Your task to perform on an android device: Empty the shopping cart on amazon.com. Add "razer huntsman" to the cart on amazon.com, then select checkout. Image 0: 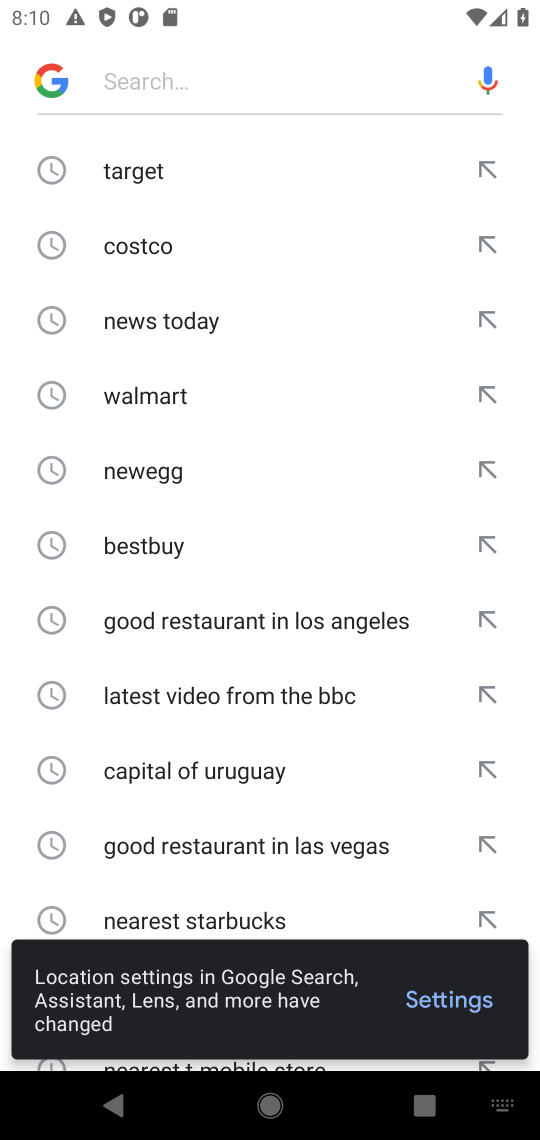
Step 0: press home button
Your task to perform on an android device: Empty the shopping cart on amazon.com. Add "razer huntsman" to the cart on amazon.com, then select checkout. Image 1: 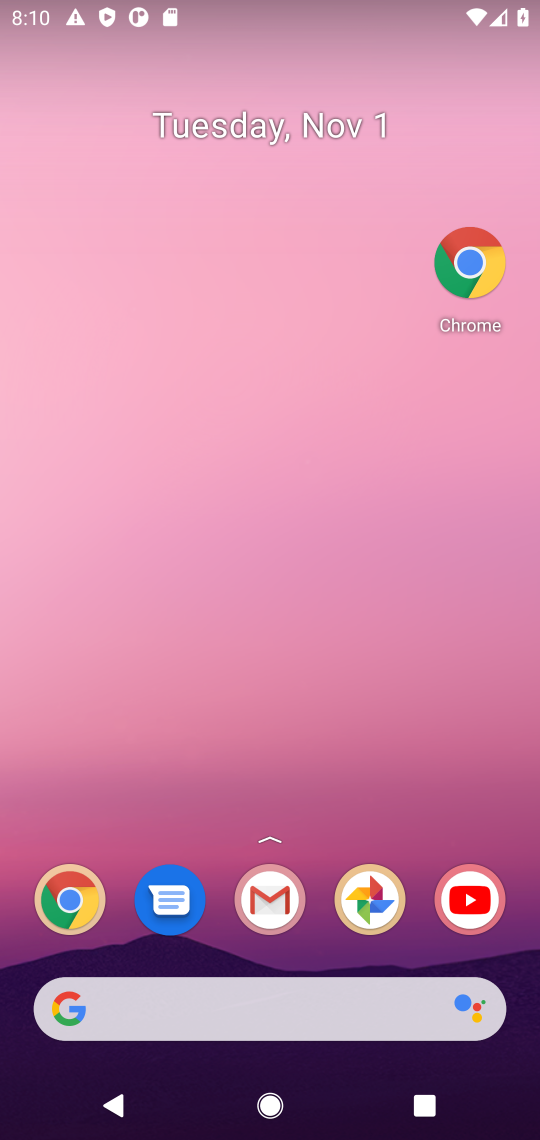
Step 1: drag from (319, 969) to (223, 128)
Your task to perform on an android device: Empty the shopping cart on amazon.com. Add "razer huntsman" to the cart on amazon.com, then select checkout. Image 2: 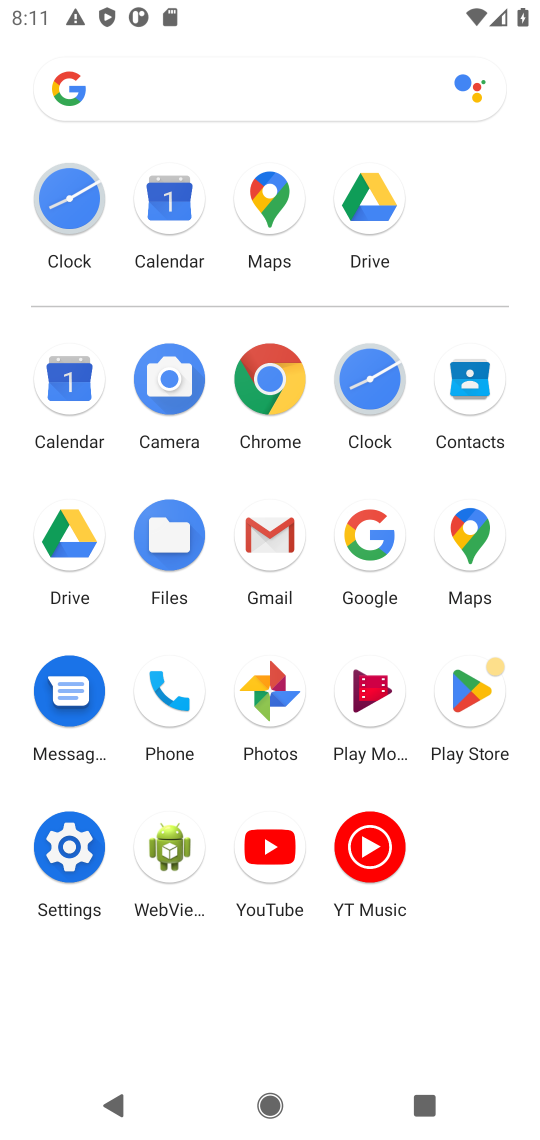
Step 2: click (259, 389)
Your task to perform on an android device: Empty the shopping cart on amazon.com. Add "razer huntsman" to the cart on amazon.com, then select checkout. Image 3: 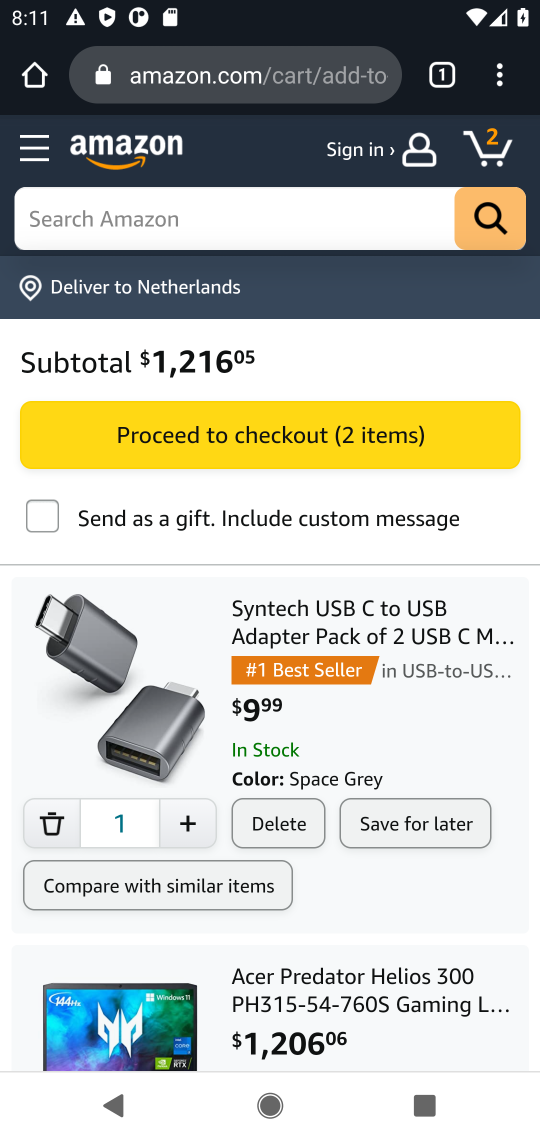
Step 3: click (493, 147)
Your task to perform on an android device: Empty the shopping cart on amazon.com. Add "razer huntsman" to the cart on amazon.com, then select checkout. Image 4: 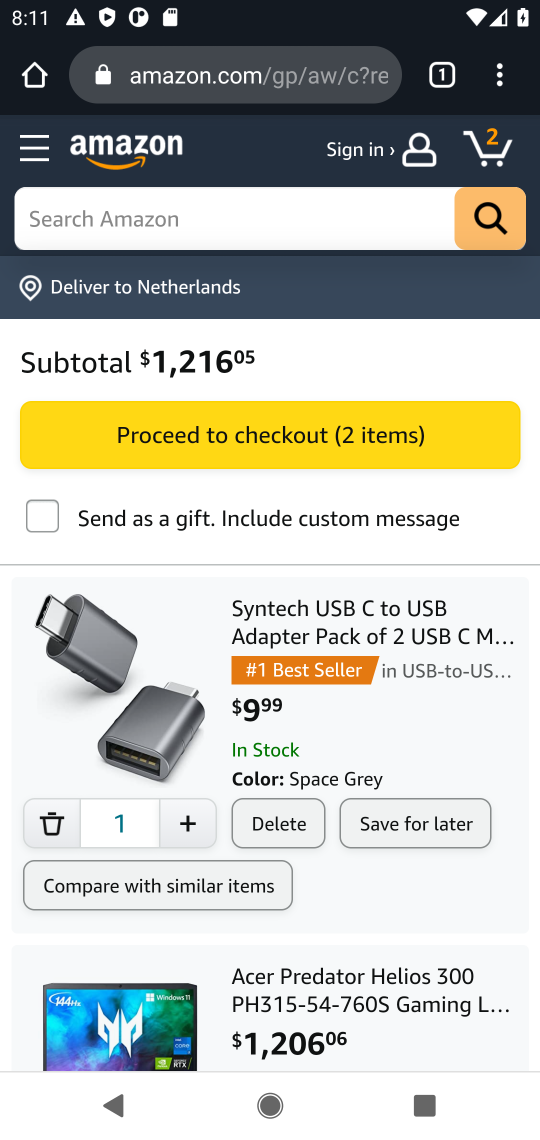
Step 4: click (287, 822)
Your task to perform on an android device: Empty the shopping cart on amazon.com. Add "razer huntsman" to the cart on amazon.com, then select checkout. Image 5: 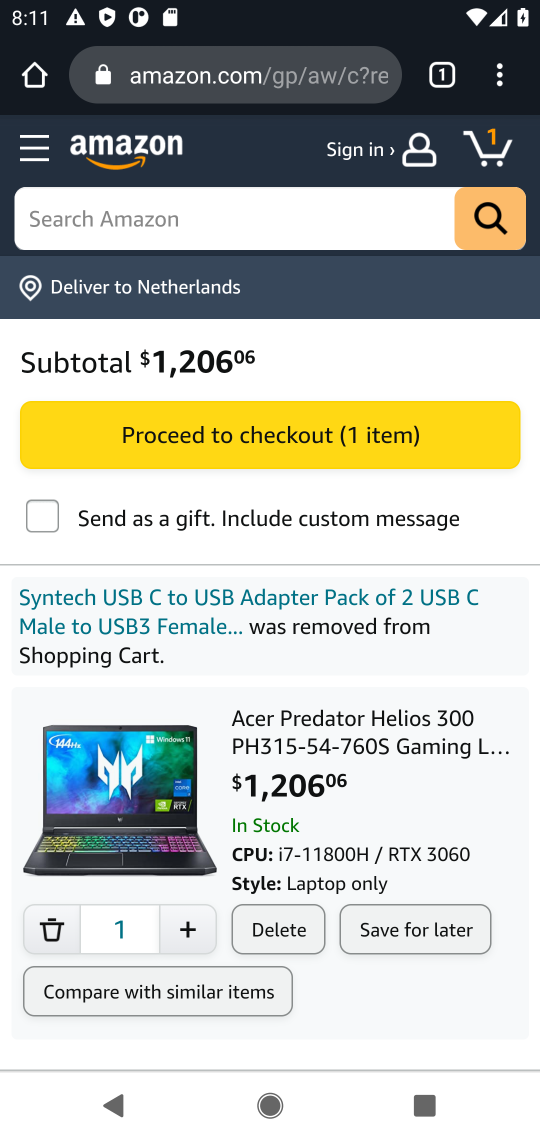
Step 5: click (292, 929)
Your task to perform on an android device: Empty the shopping cart on amazon.com. Add "razer huntsman" to the cart on amazon.com, then select checkout. Image 6: 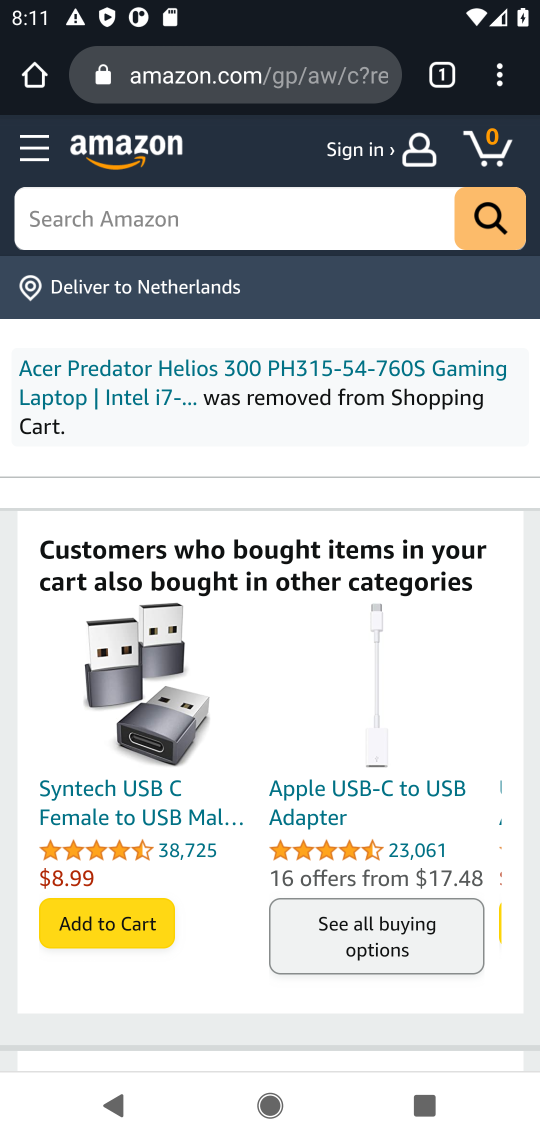
Step 6: click (268, 222)
Your task to perform on an android device: Empty the shopping cart on amazon.com. Add "razer huntsman" to the cart on amazon.com, then select checkout. Image 7: 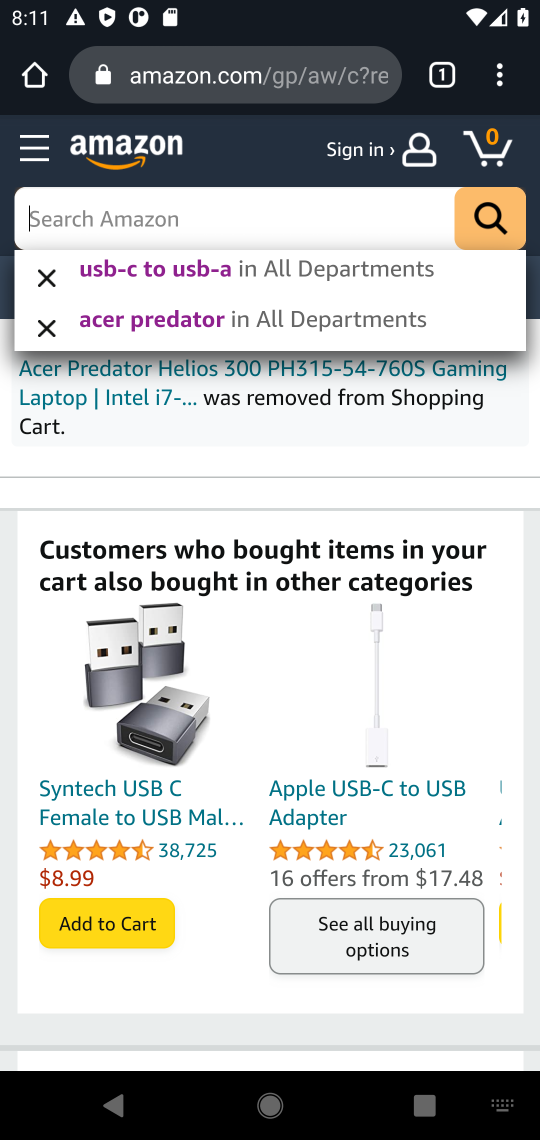
Step 7: type "razer huntsman"
Your task to perform on an android device: Empty the shopping cart on amazon.com. Add "razer huntsman" to the cart on amazon.com, then select checkout. Image 8: 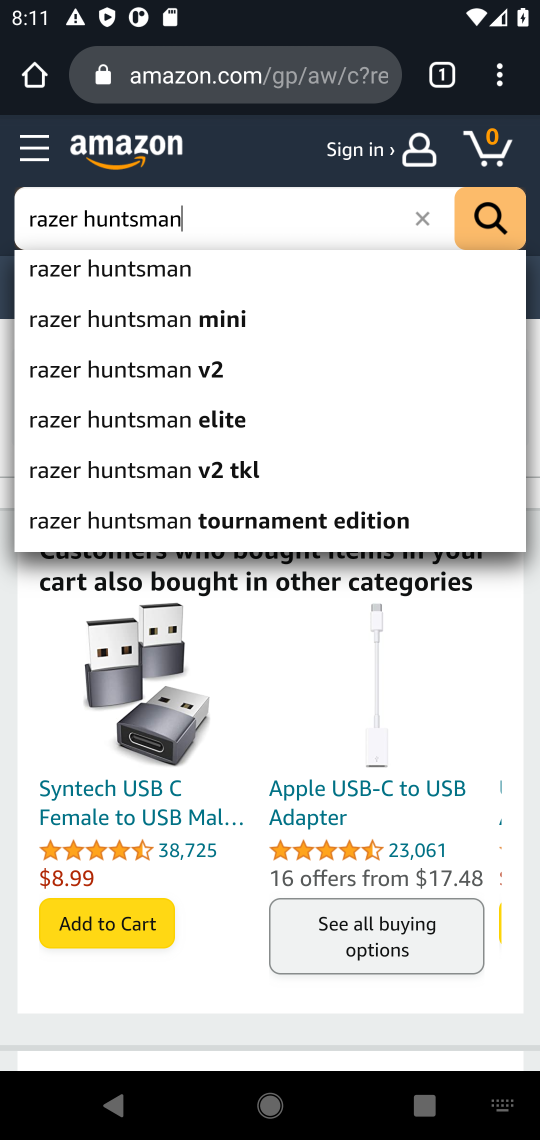
Step 8: press enter
Your task to perform on an android device: Empty the shopping cart on amazon.com. Add "razer huntsman" to the cart on amazon.com, then select checkout. Image 9: 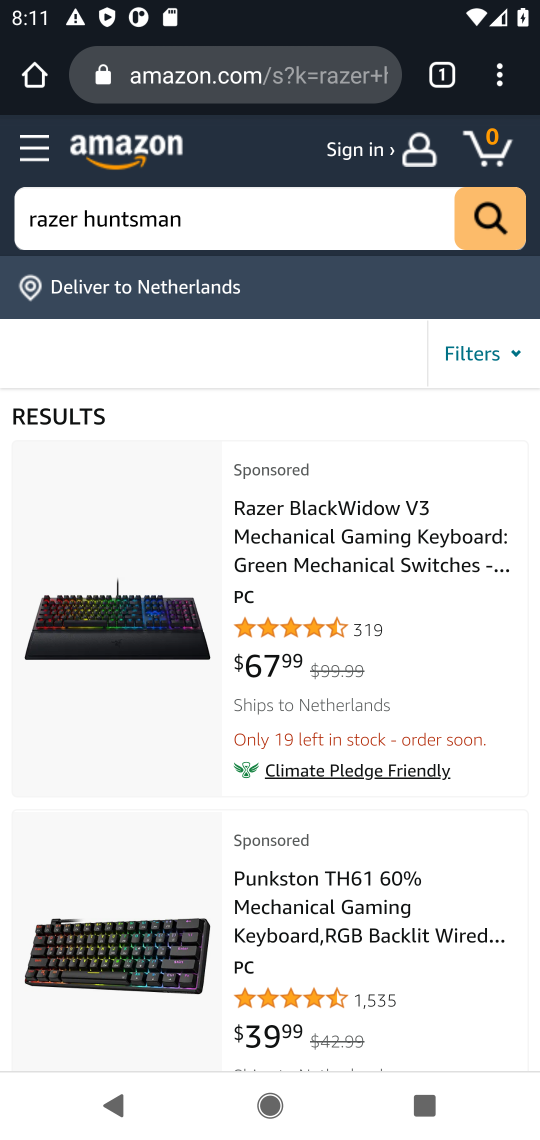
Step 9: drag from (367, 969) to (227, 360)
Your task to perform on an android device: Empty the shopping cart on amazon.com. Add "razer huntsman" to the cart on amazon.com, then select checkout. Image 10: 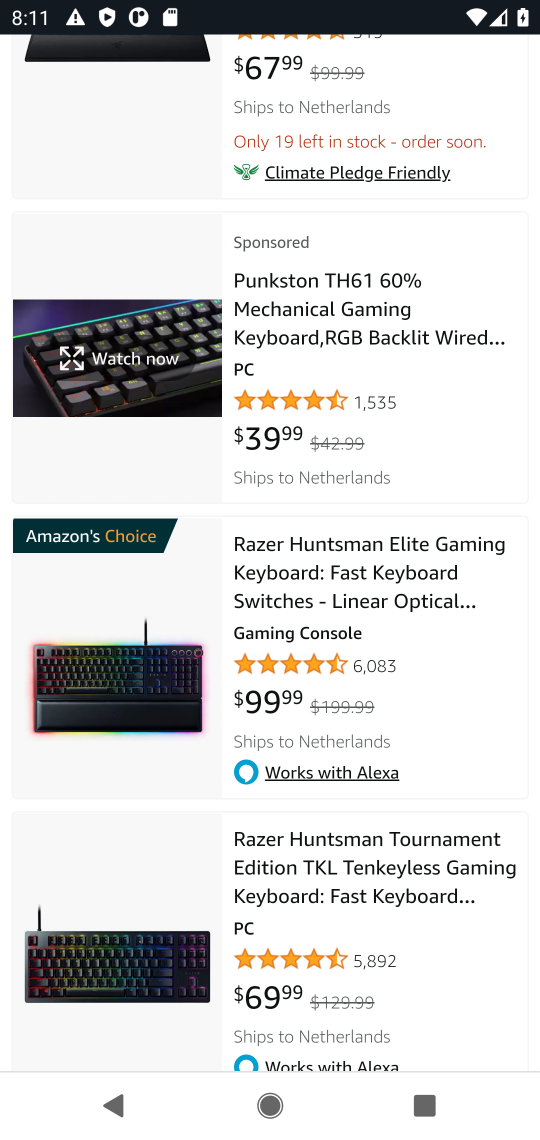
Step 10: click (346, 587)
Your task to perform on an android device: Empty the shopping cart on amazon.com. Add "razer huntsman" to the cart on amazon.com, then select checkout. Image 11: 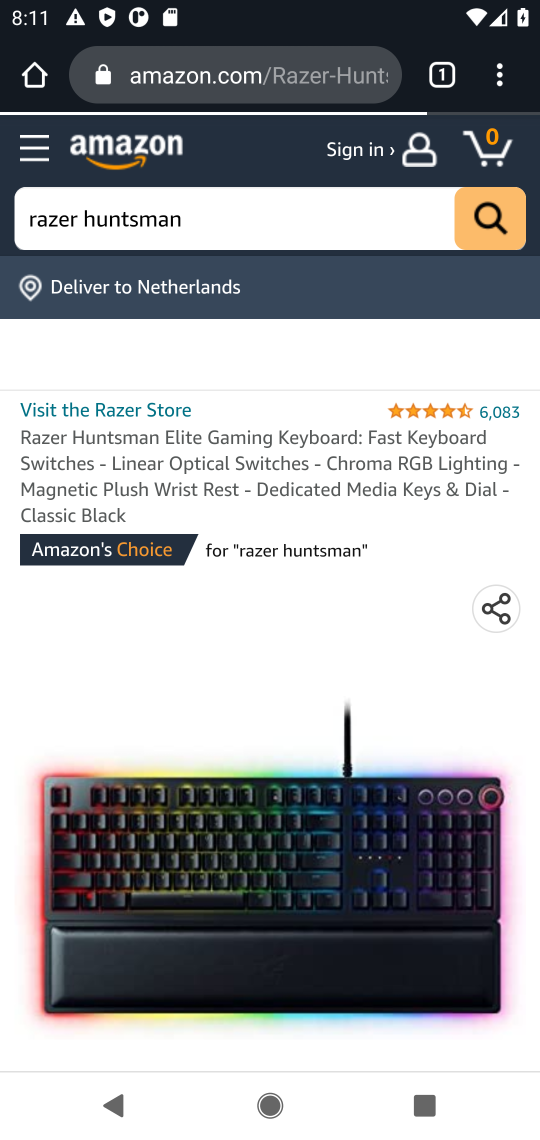
Step 11: drag from (335, 707) to (304, 409)
Your task to perform on an android device: Empty the shopping cart on amazon.com. Add "razer huntsman" to the cart on amazon.com, then select checkout. Image 12: 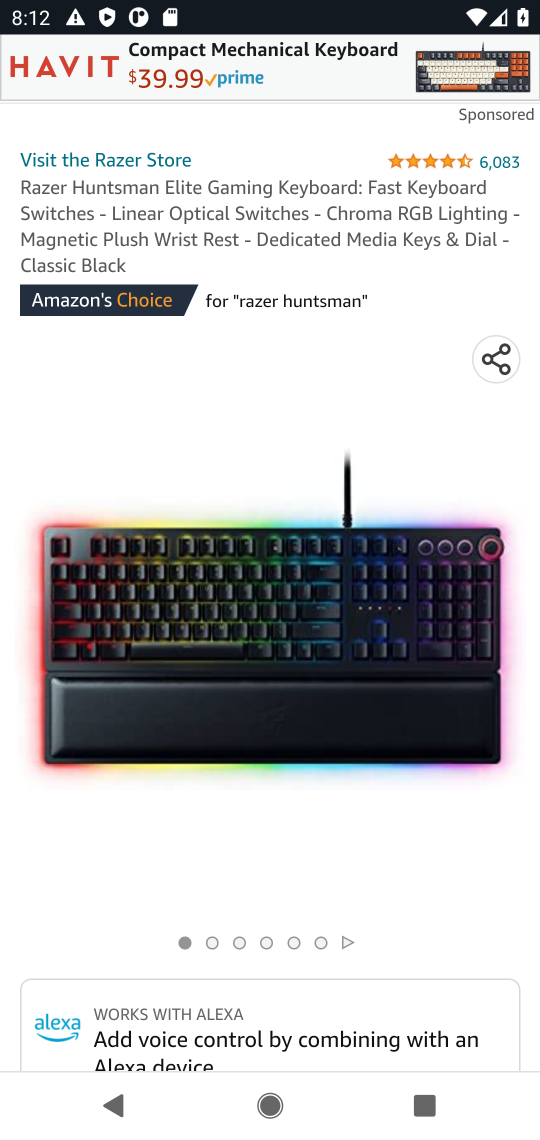
Step 12: drag from (374, 847) to (333, 211)
Your task to perform on an android device: Empty the shopping cart on amazon.com. Add "razer huntsman" to the cart on amazon.com, then select checkout. Image 13: 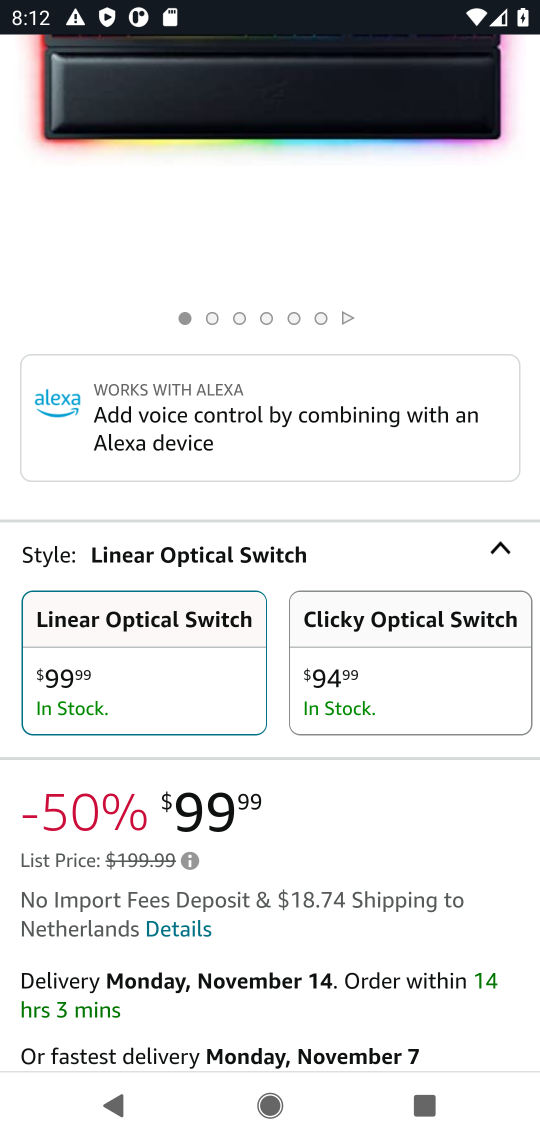
Step 13: drag from (332, 875) to (221, 260)
Your task to perform on an android device: Empty the shopping cart on amazon.com. Add "razer huntsman" to the cart on amazon.com, then select checkout. Image 14: 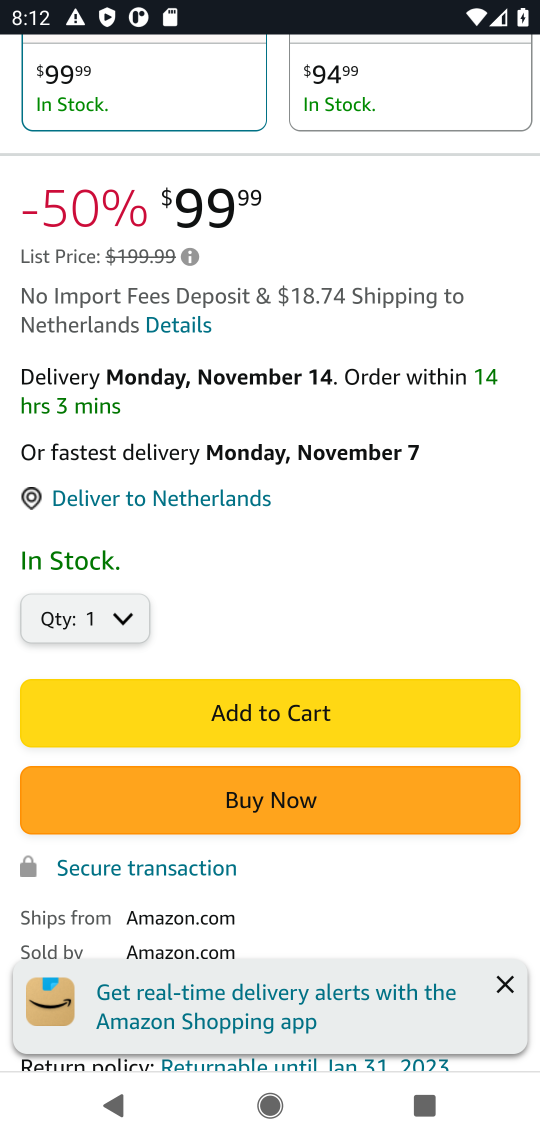
Step 14: click (303, 706)
Your task to perform on an android device: Empty the shopping cart on amazon.com. Add "razer huntsman" to the cart on amazon.com, then select checkout. Image 15: 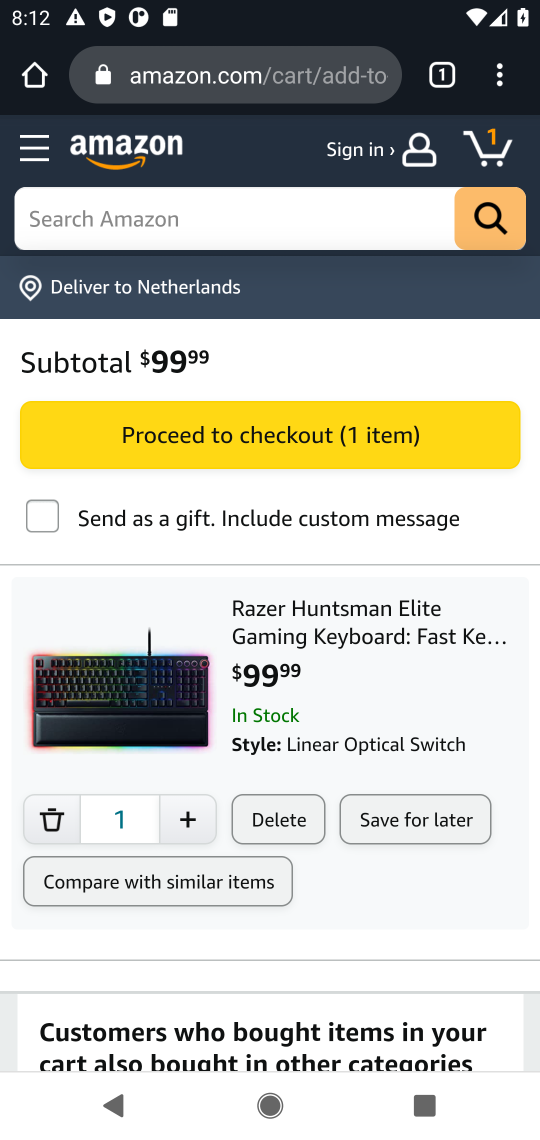
Step 15: click (367, 447)
Your task to perform on an android device: Empty the shopping cart on amazon.com. Add "razer huntsman" to the cart on amazon.com, then select checkout. Image 16: 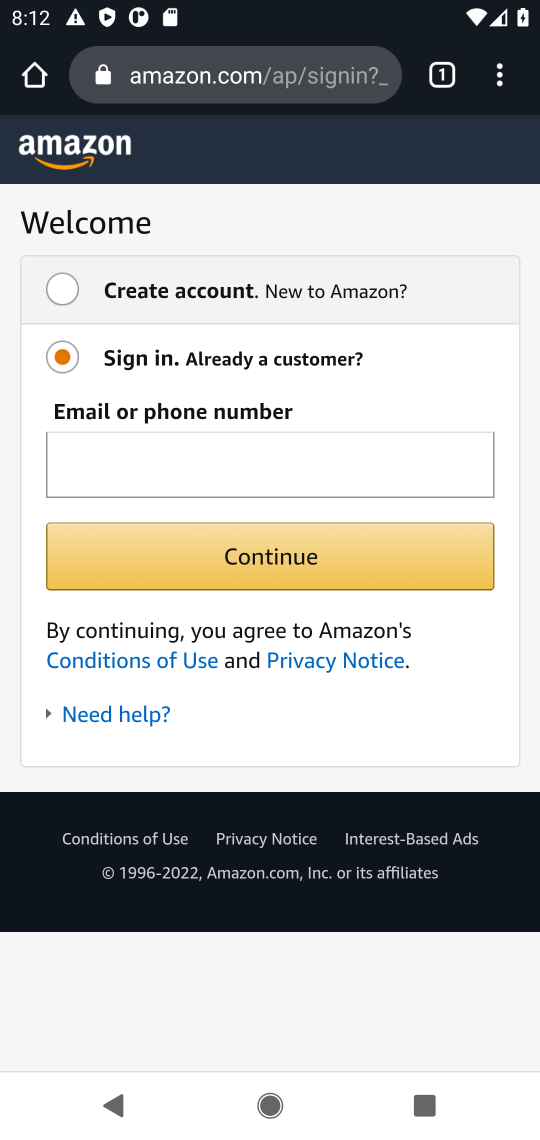
Step 16: task complete